Your task to perform on an android device: add a contact in the contacts app Image 0: 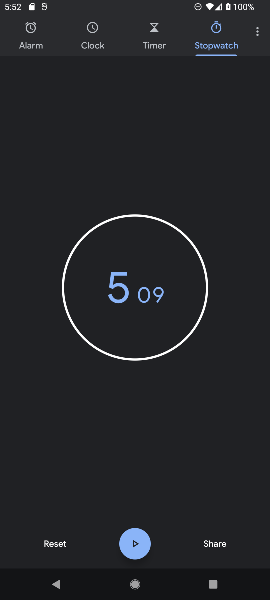
Step 0: press back button
Your task to perform on an android device: add a contact in the contacts app Image 1: 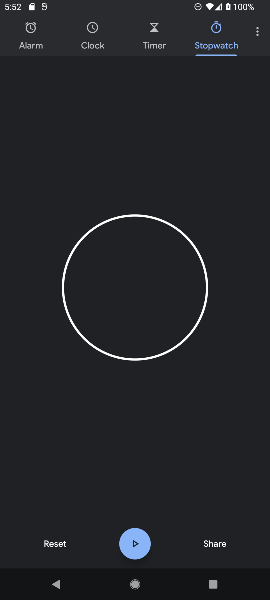
Step 1: press back button
Your task to perform on an android device: add a contact in the contacts app Image 2: 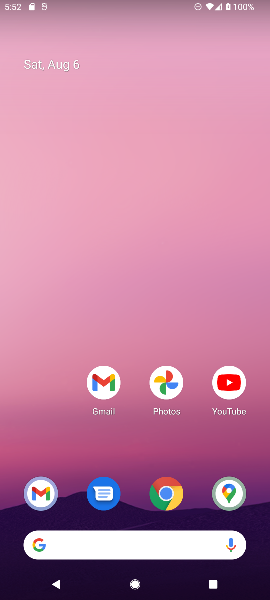
Step 2: press back button
Your task to perform on an android device: add a contact in the contacts app Image 3: 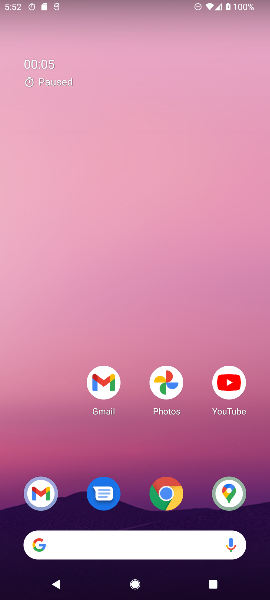
Step 3: drag from (146, 466) to (152, 100)
Your task to perform on an android device: add a contact in the contacts app Image 4: 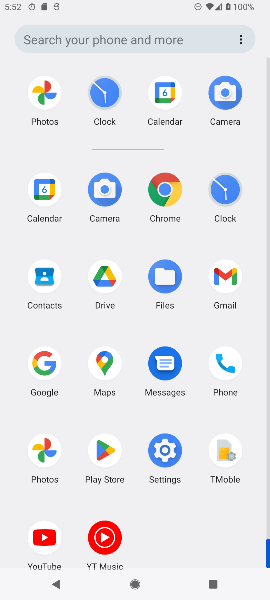
Step 4: drag from (109, 3) to (93, 43)
Your task to perform on an android device: add a contact in the contacts app Image 5: 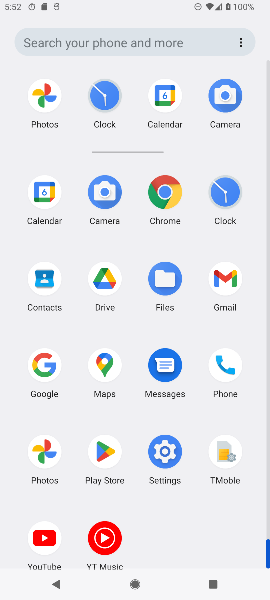
Step 5: click (35, 277)
Your task to perform on an android device: add a contact in the contacts app Image 6: 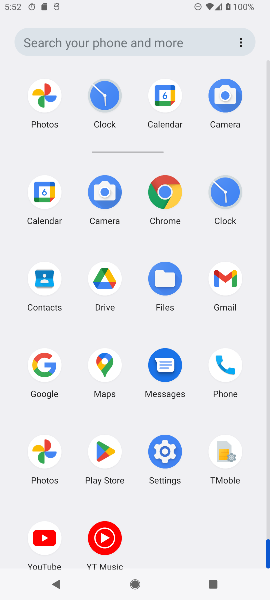
Step 6: click (35, 277)
Your task to perform on an android device: add a contact in the contacts app Image 7: 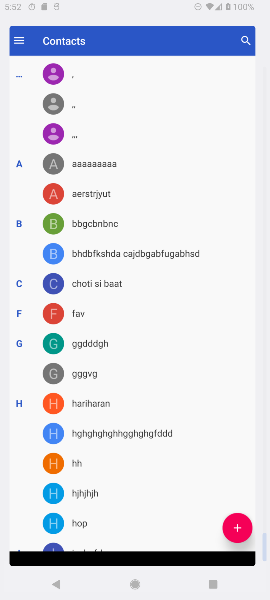
Step 7: click (34, 278)
Your task to perform on an android device: add a contact in the contacts app Image 8: 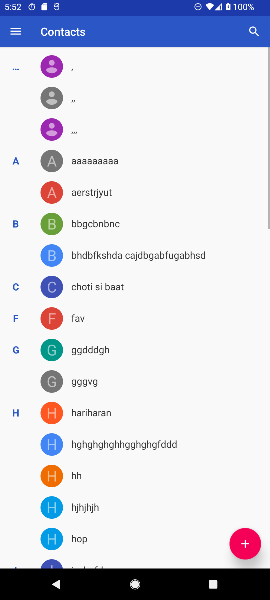
Step 8: click (34, 278)
Your task to perform on an android device: add a contact in the contacts app Image 9: 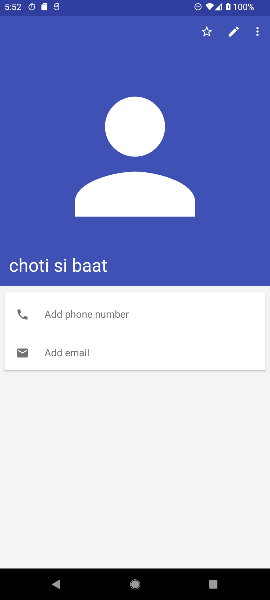
Step 9: press back button
Your task to perform on an android device: add a contact in the contacts app Image 10: 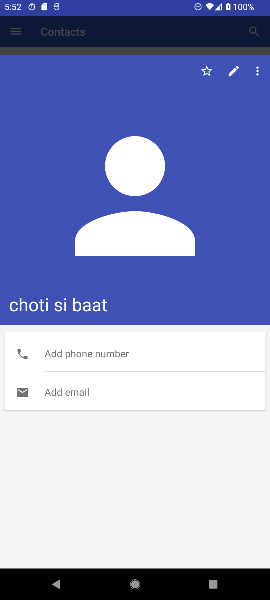
Step 10: press back button
Your task to perform on an android device: add a contact in the contacts app Image 11: 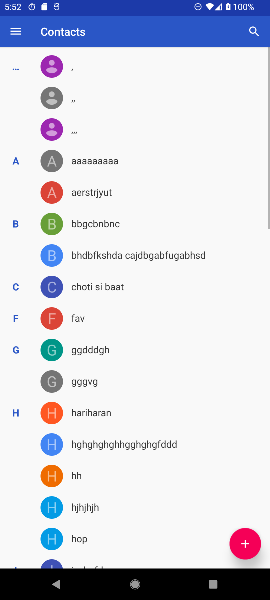
Step 11: press back button
Your task to perform on an android device: add a contact in the contacts app Image 12: 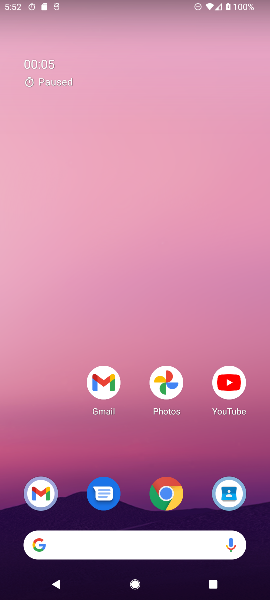
Step 12: drag from (165, 570) to (98, 231)
Your task to perform on an android device: add a contact in the contacts app Image 13: 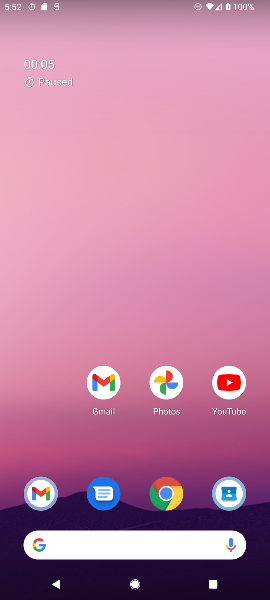
Step 13: drag from (143, 484) to (112, 87)
Your task to perform on an android device: add a contact in the contacts app Image 14: 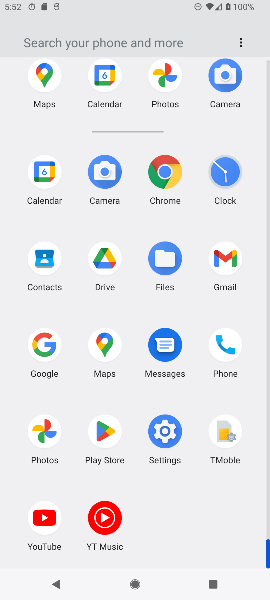
Step 14: click (37, 264)
Your task to perform on an android device: add a contact in the contacts app Image 15: 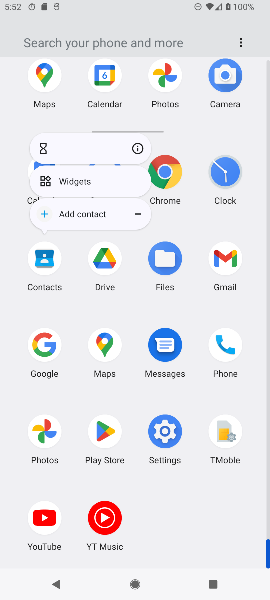
Step 15: click (37, 264)
Your task to perform on an android device: add a contact in the contacts app Image 16: 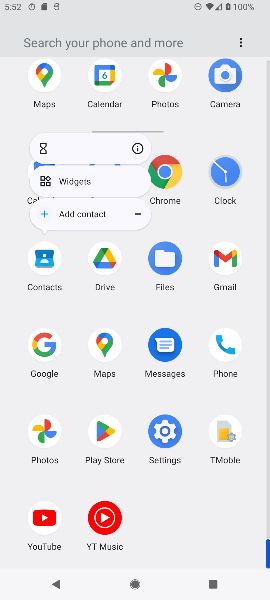
Step 16: click (37, 265)
Your task to perform on an android device: add a contact in the contacts app Image 17: 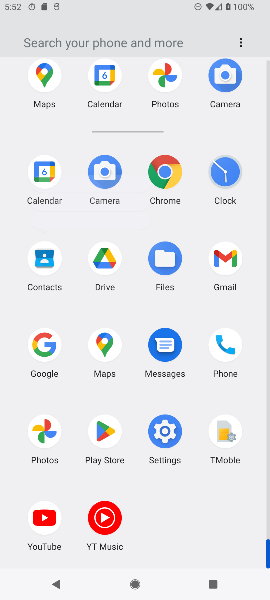
Step 17: click (39, 264)
Your task to perform on an android device: add a contact in the contacts app Image 18: 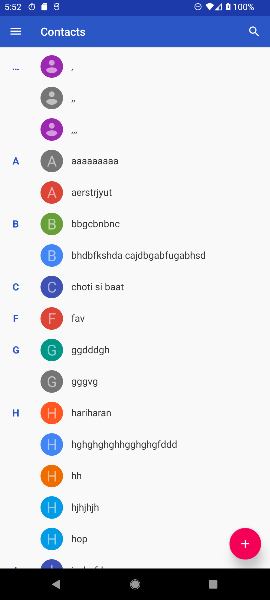
Step 18: click (240, 538)
Your task to perform on an android device: add a contact in the contacts app Image 19: 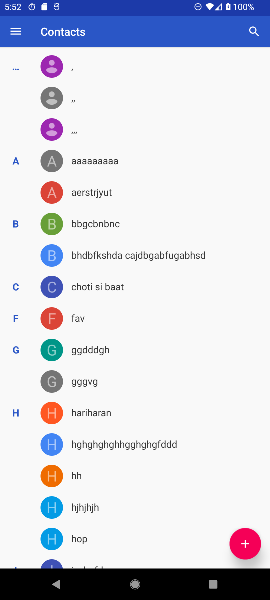
Step 19: click (240, 538)
Your task to perform on an android device: add a contact in the contacts app Image 20: 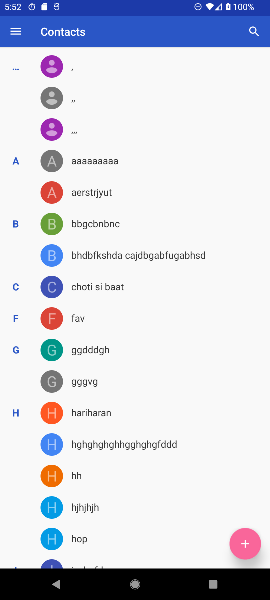
Step 20: click (240, 539)
Your task to perform on an android device: add a contact in the contacts app Image 21: 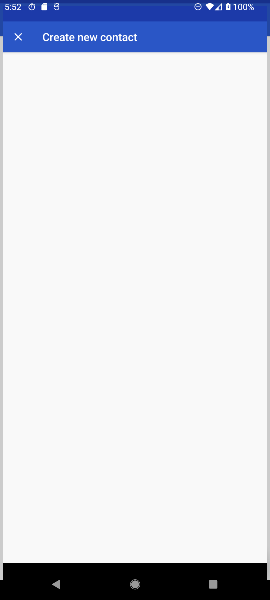
Step 21: click (240, 539)
Your task to perform on an android device: add a contact in the contacts app Image 22: 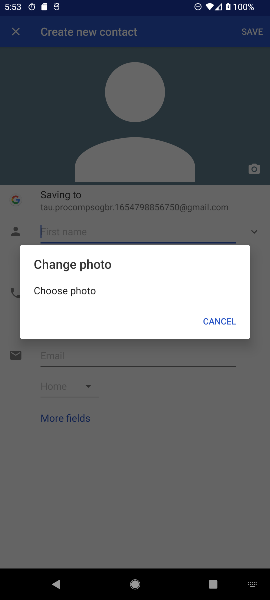
Step 22: click (211, 321)
Your task to perform on an android device: add a contact in the contacts app Image 23: 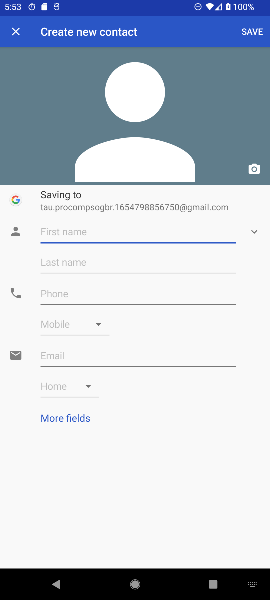
Step 23: type "vbfbvhfhvb"
Your task to perform on an android device: add a contact in the contacts app Image 24: 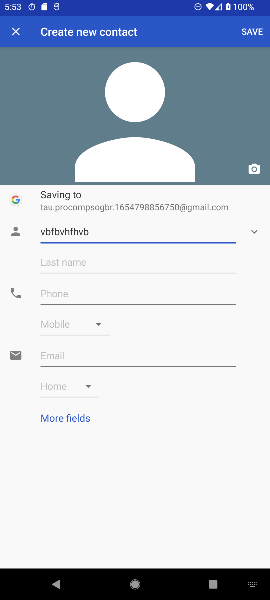
Step 24: click (51, 287)
Your task to perform on an android device: add a contact in the contacts app Image 25: 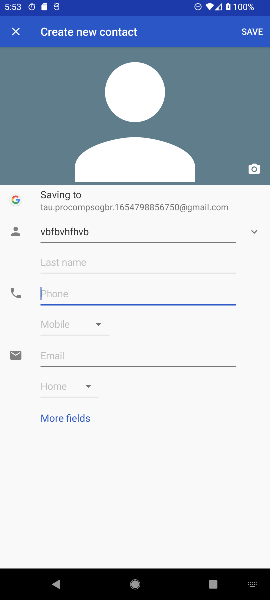
Step 25: click (51, 287)
Your task to perform on an android device: add a contact in the contacts app Image 26: 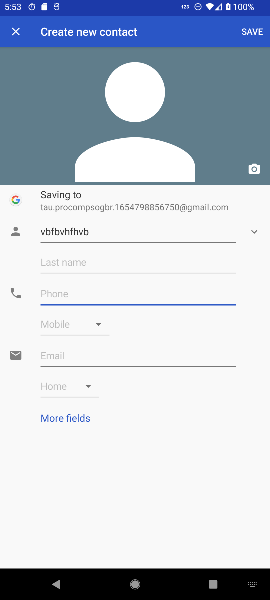
Step 26: type "7685765867548969"
Your task to perform on an android device: add a contact in the contacts app Image 27: 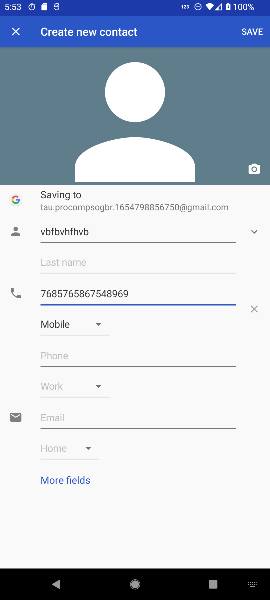
Step 27: click (236, 30)
Your task to perform on an android device: add a contact in the contacts app Image 28: 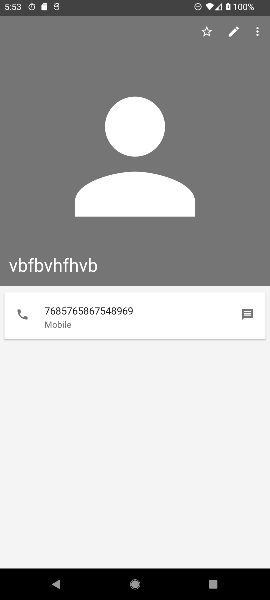
Step 28: task complete